Your task to perform on an android device: Open internet settings Image 0: 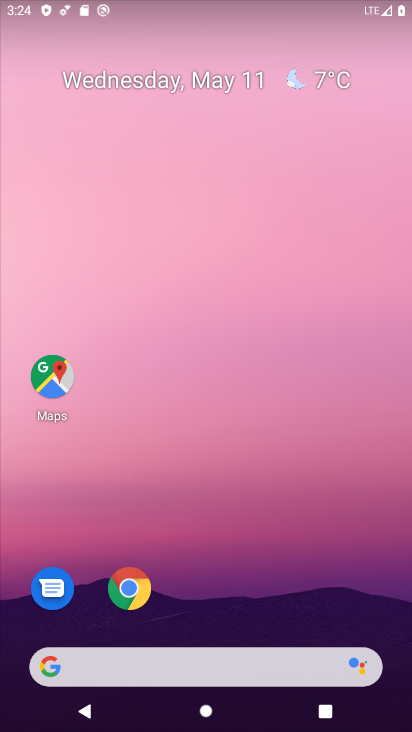
Step 0: drag from (223, 724) to (235, 164)
Your task to perform on an android device: Open internet settings Image 1: 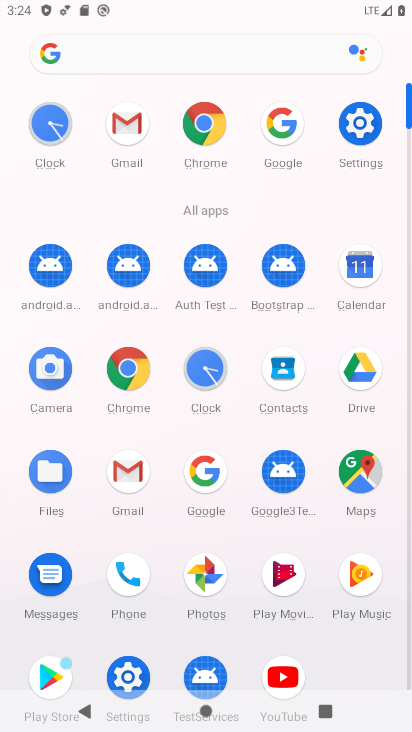
Step 1: click (358, 130)
Your task to perform on an android device: Open internet settings Image 2: 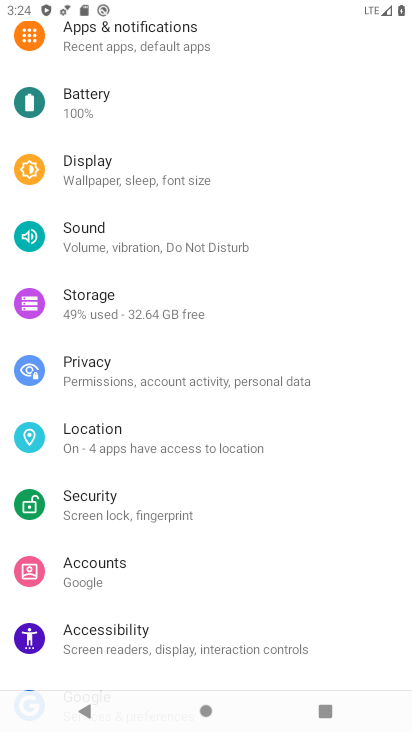
Step 2: drag from (173, 125) to (162, 469)
Your task to perform on an android device: Open internet settings Image 3: 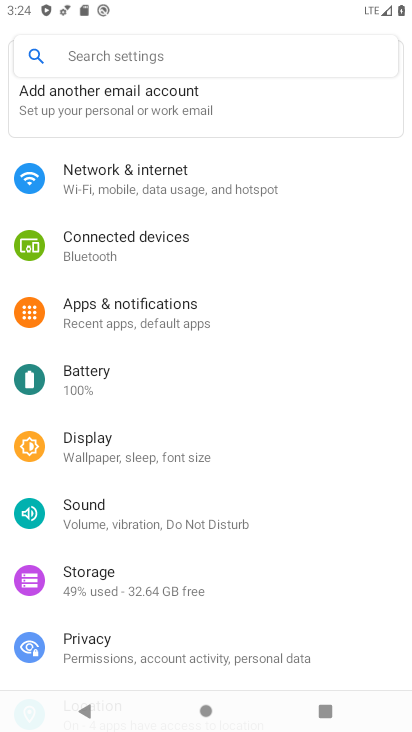
Step 3: click (105, 177)
Your task to perform on an android device: Open internet settings Image 4: 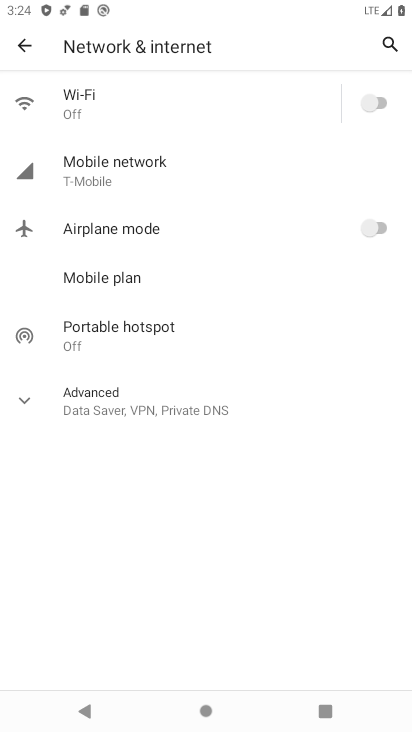
Step 4: task complete